Your task to perform on an android device: check android version Image 0: 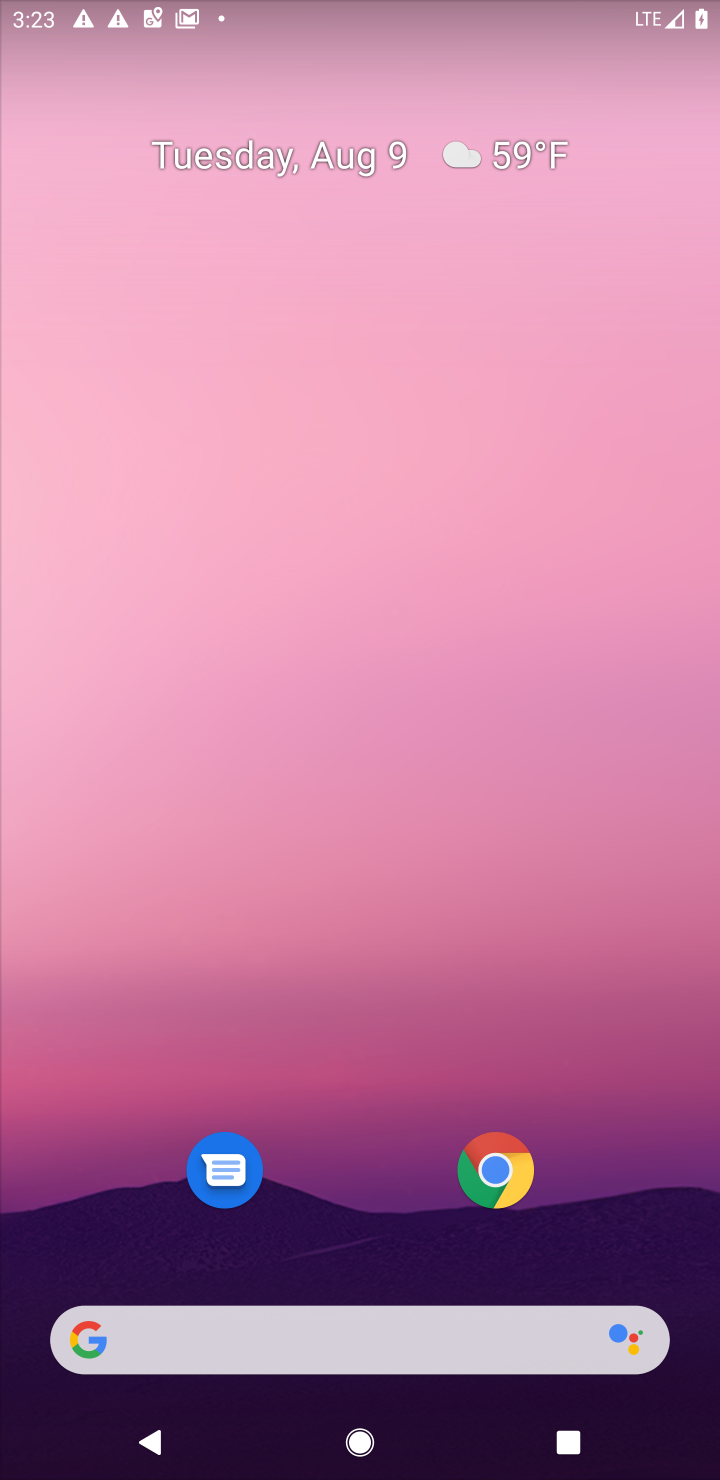
Step 0: press home button
Your task to perform on an android device: check android version Image 1: 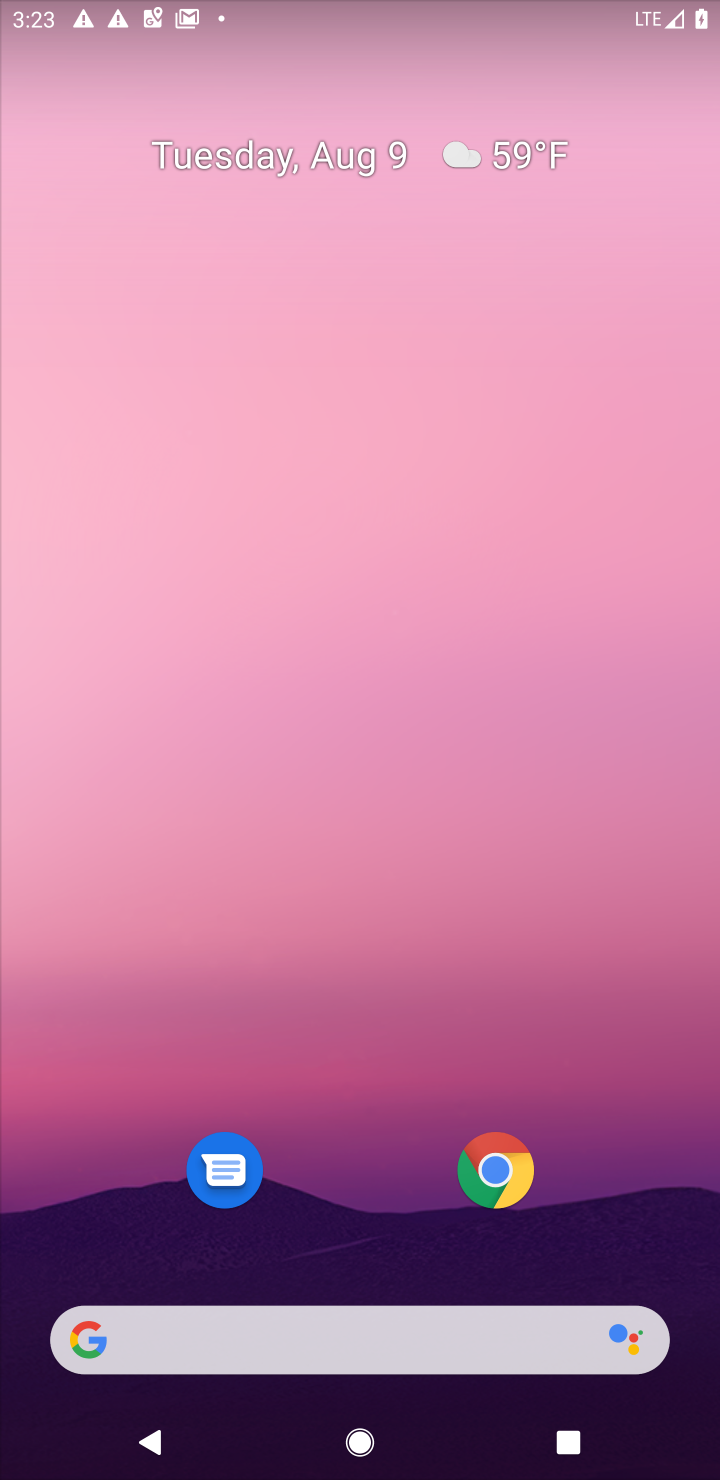
Step 1: click (420, 45)
Your task to perform on an android device: check android version Image 2: 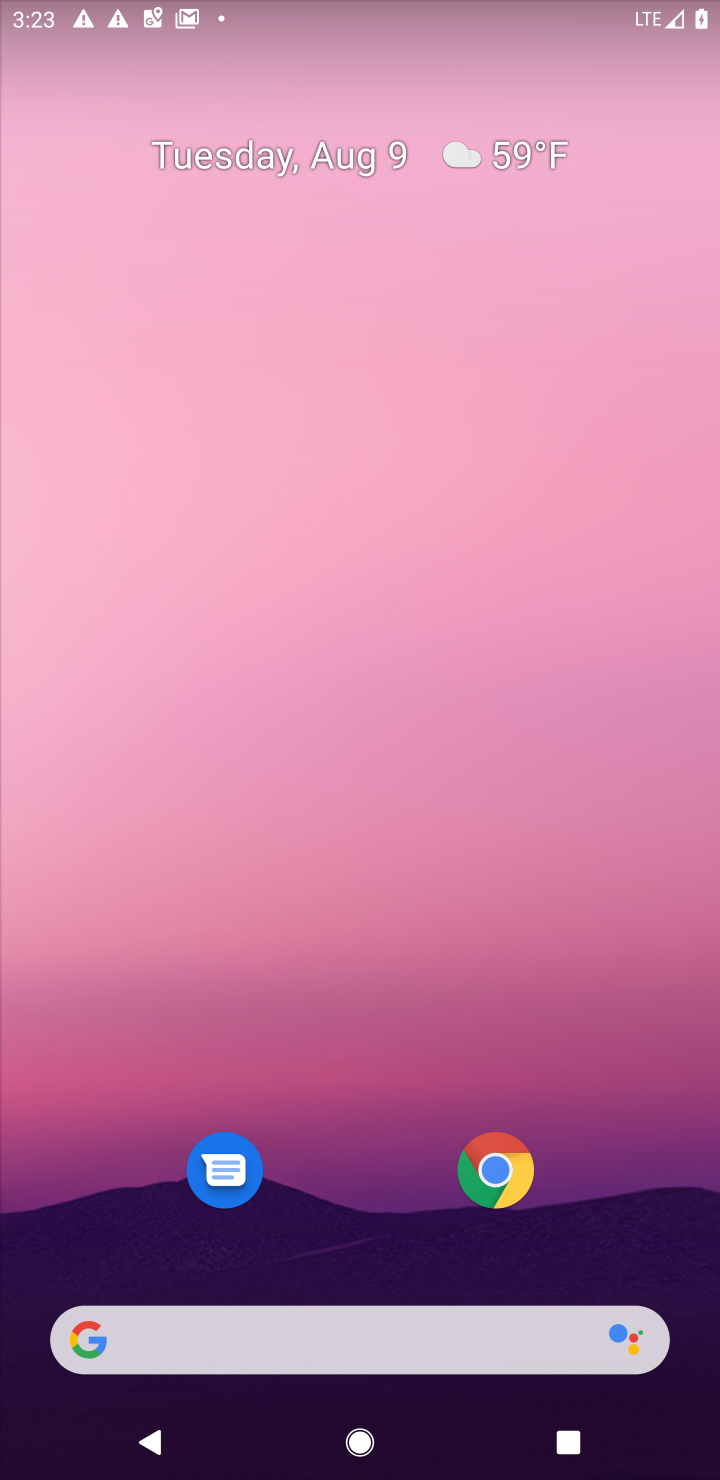
Step 2: drag from (336, 461) to (337, 183)
Your task to perform on an android device: check android version Image 3: 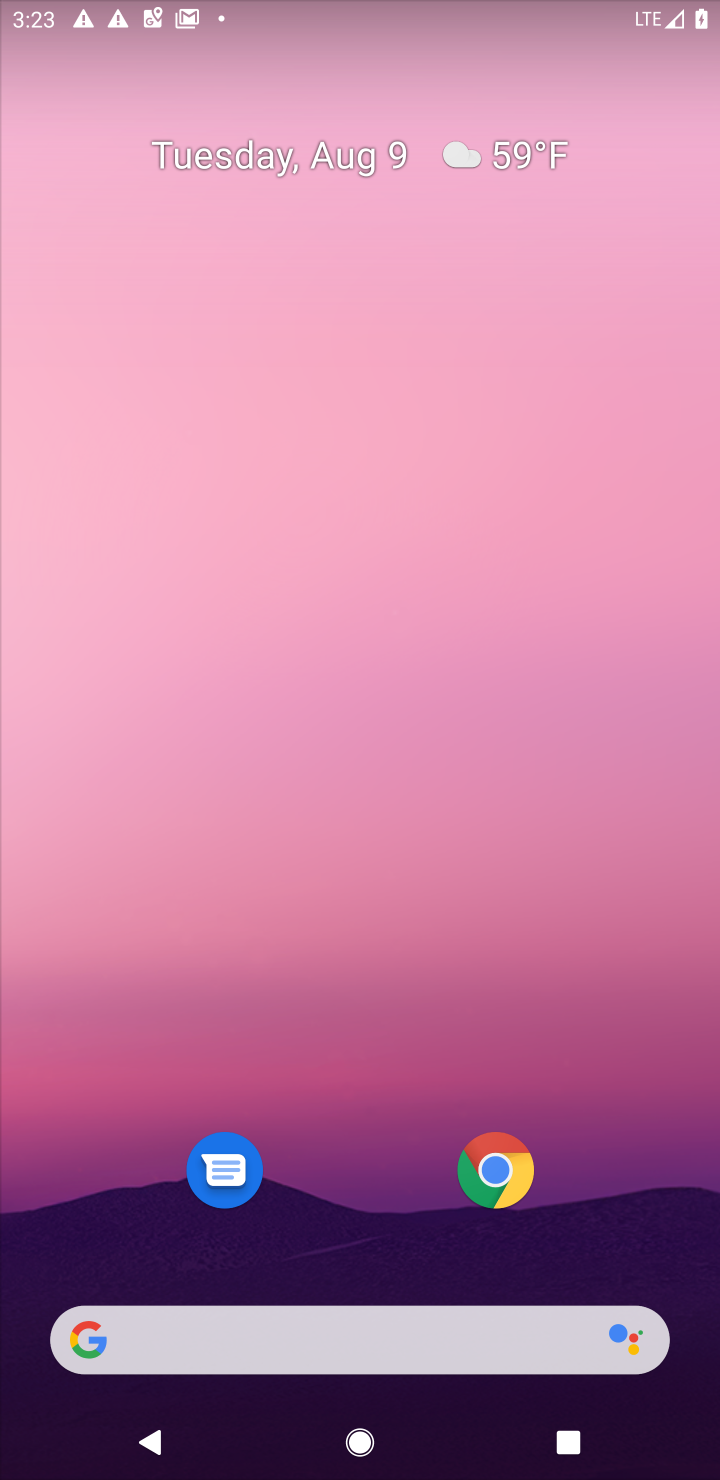
Step 3: drag from (385, 279) to (402, 164)
Your task to perform on an android device: check android version Image 4: 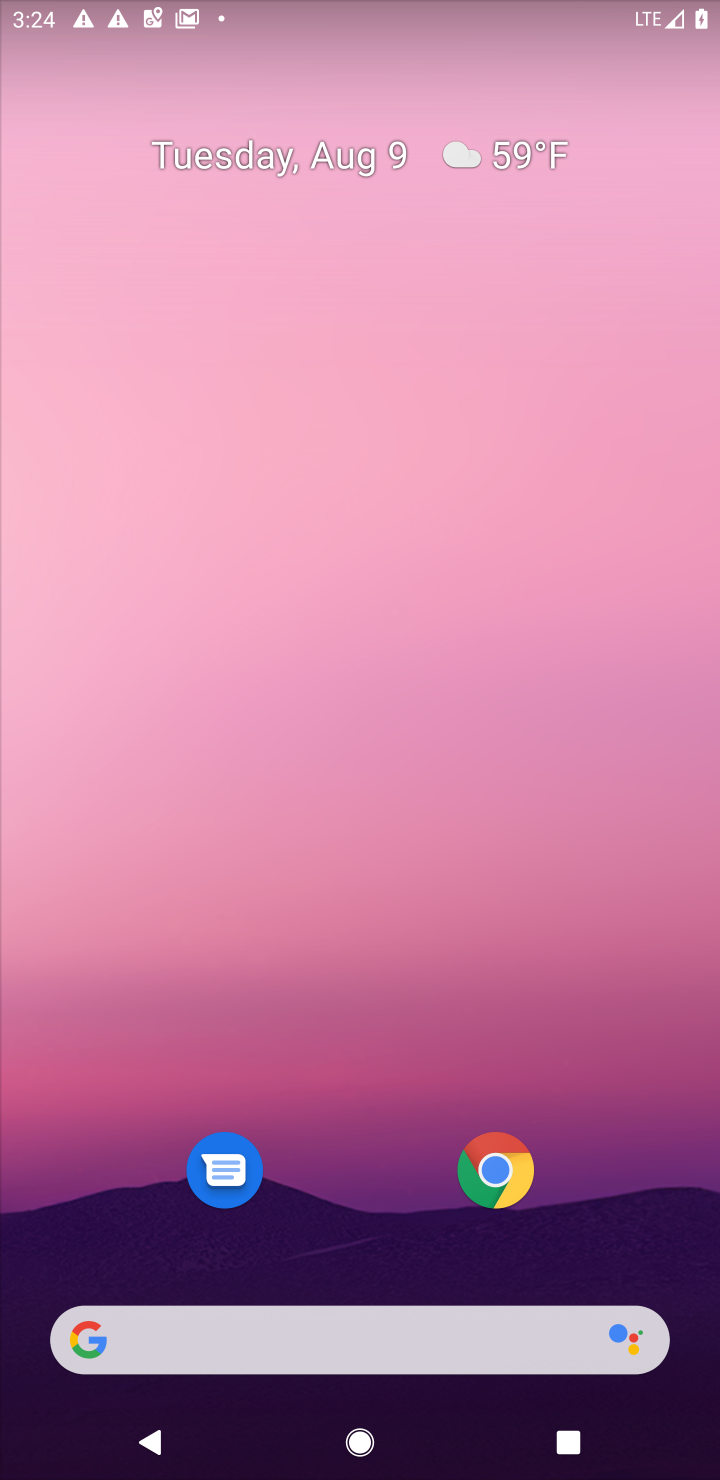
Step 4: drag from (414, 697) to (460, 133)
Your task to perform on an android device: check android version Image 5: 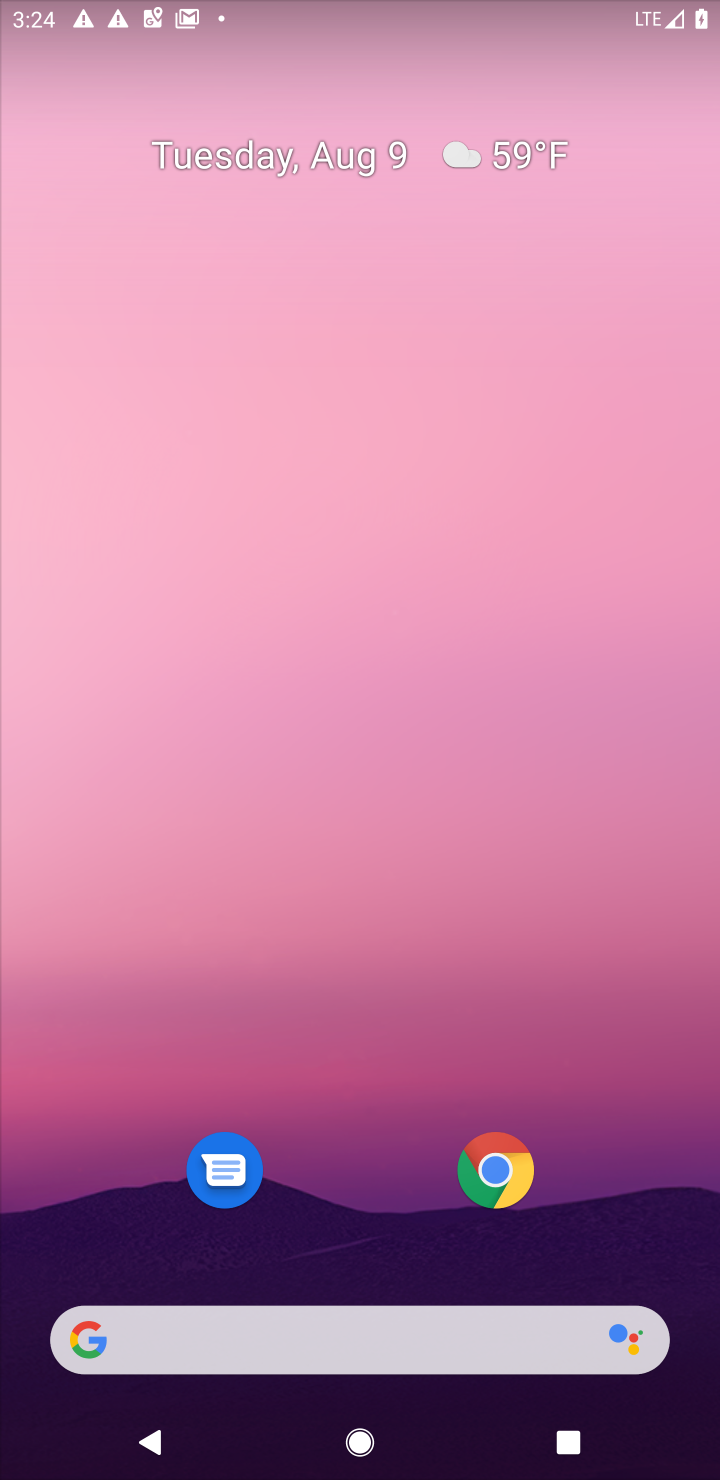
Step 5: drag from (361, 1180) to (430, 2)
Your task to perform on an android device: check android version Image 6: 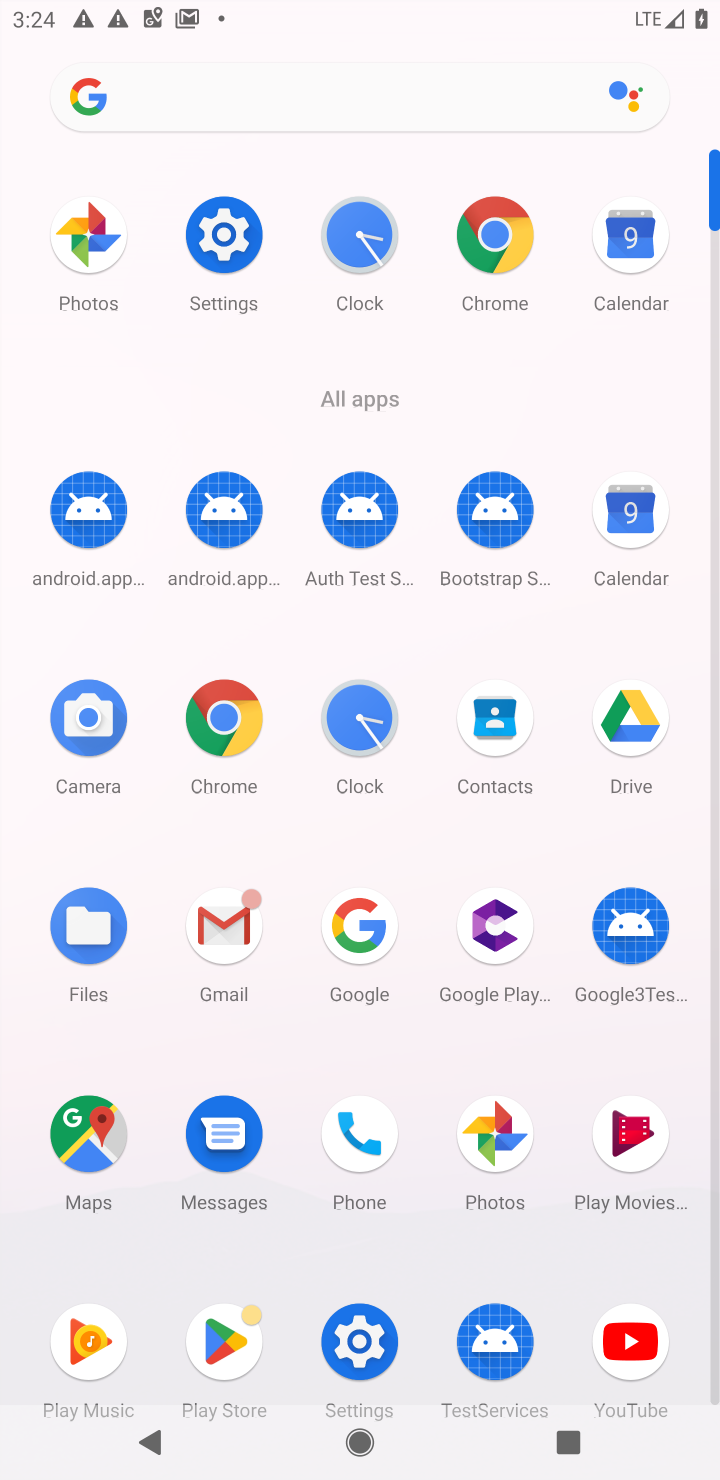
Step 6: click (213, 221)
Your task to perform on an android device: check android version Image 7: 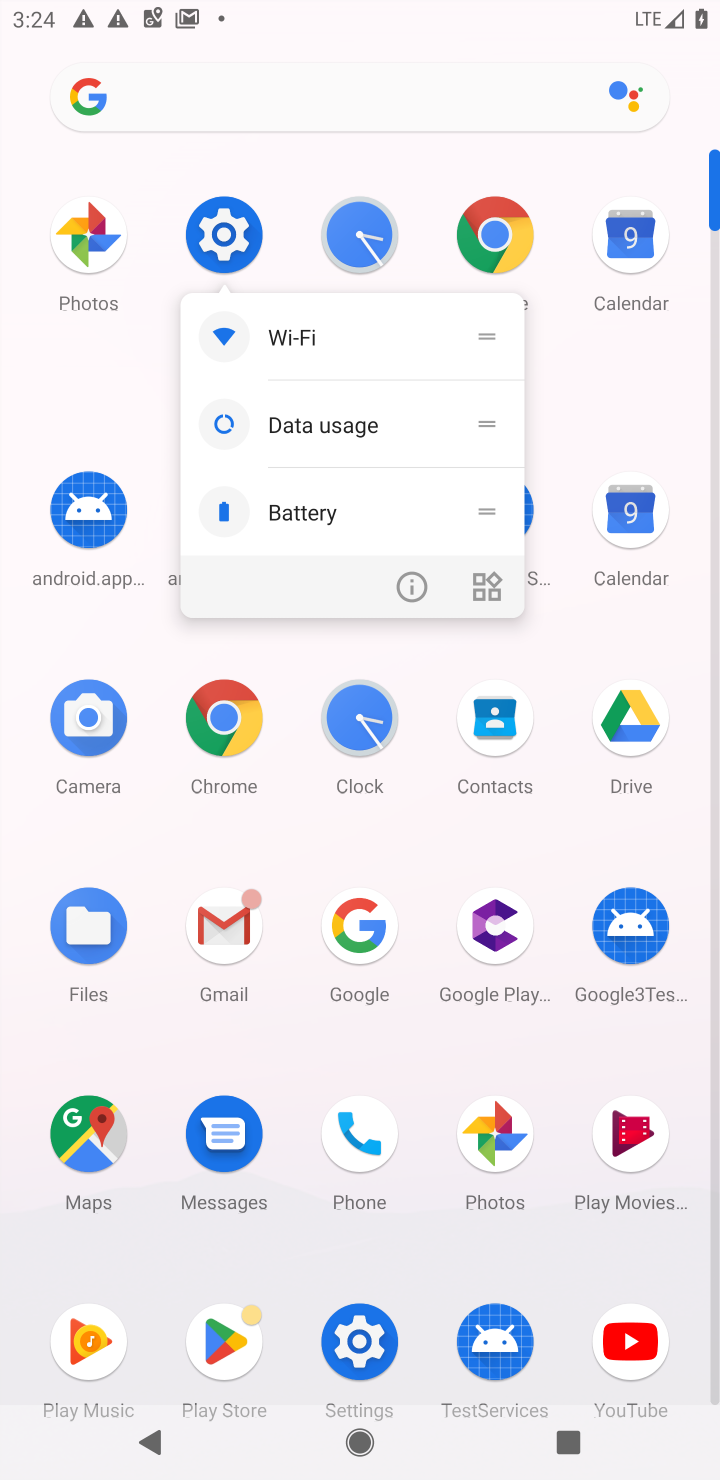
Step 7: click (242, 235)
Your task to perform on an android device: check android version Image 8: 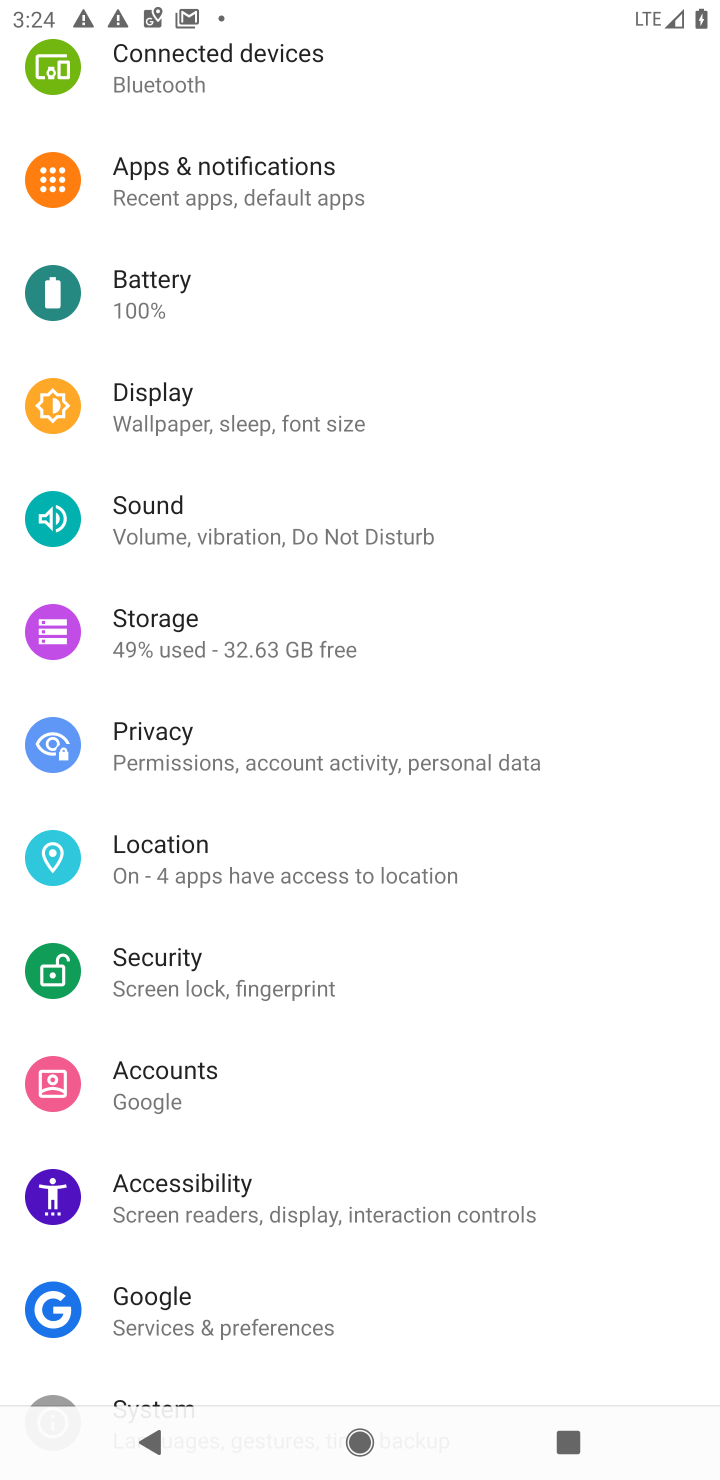
Step 8: drag from (246, 1365) to (289, 591)
Your task to perform on an android device: check android version Image 9: 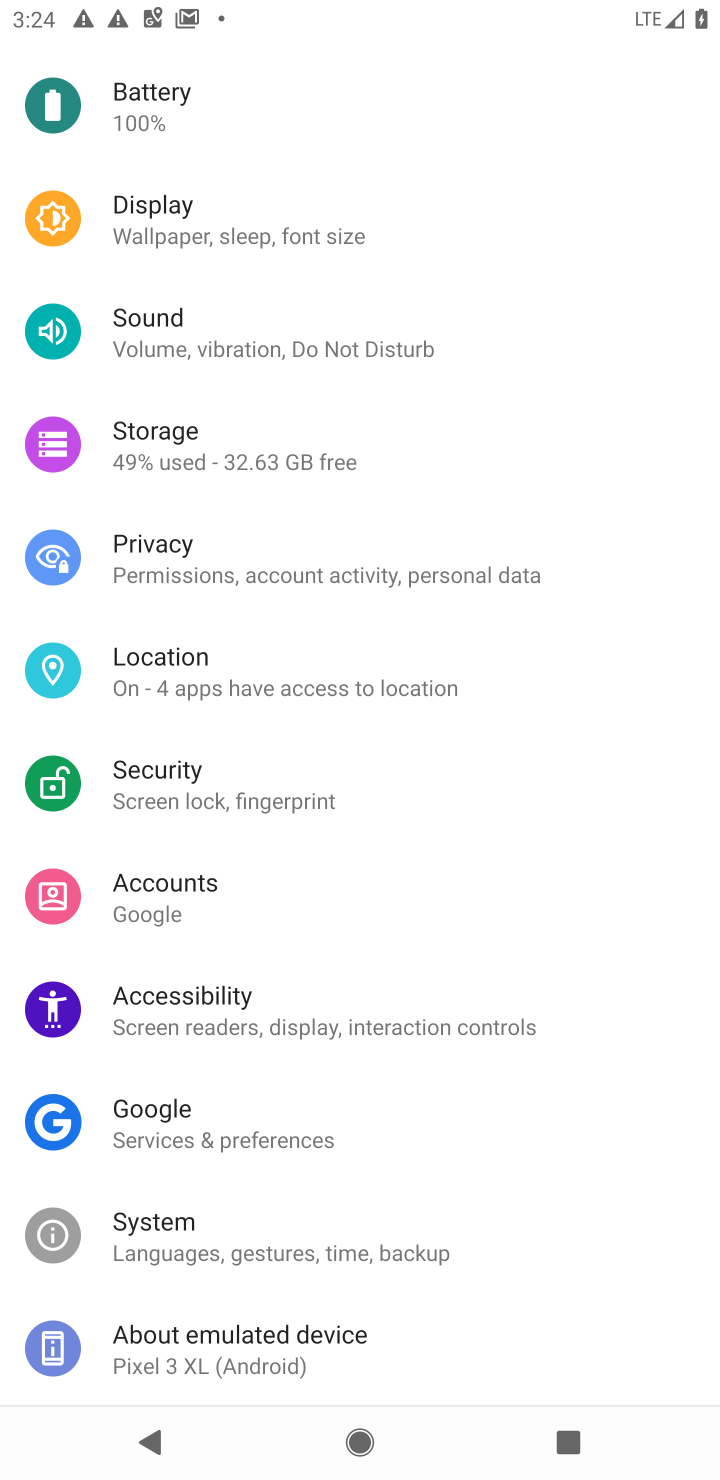
Step 9: click (168, 1346)
Your task to perform on an android device: check android version Image 10: 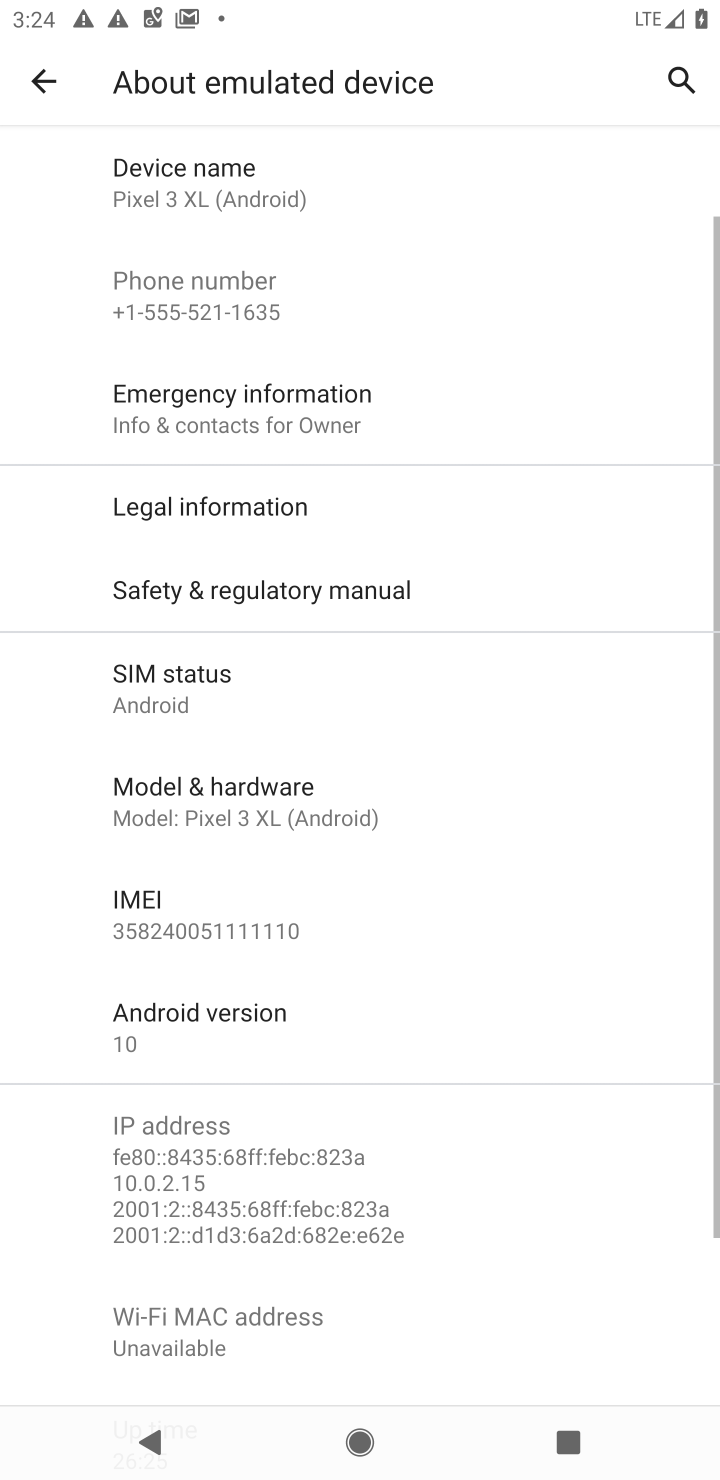
Step 10: click (162, 1034)
Your task to perform on an android device: check android version Image 11: 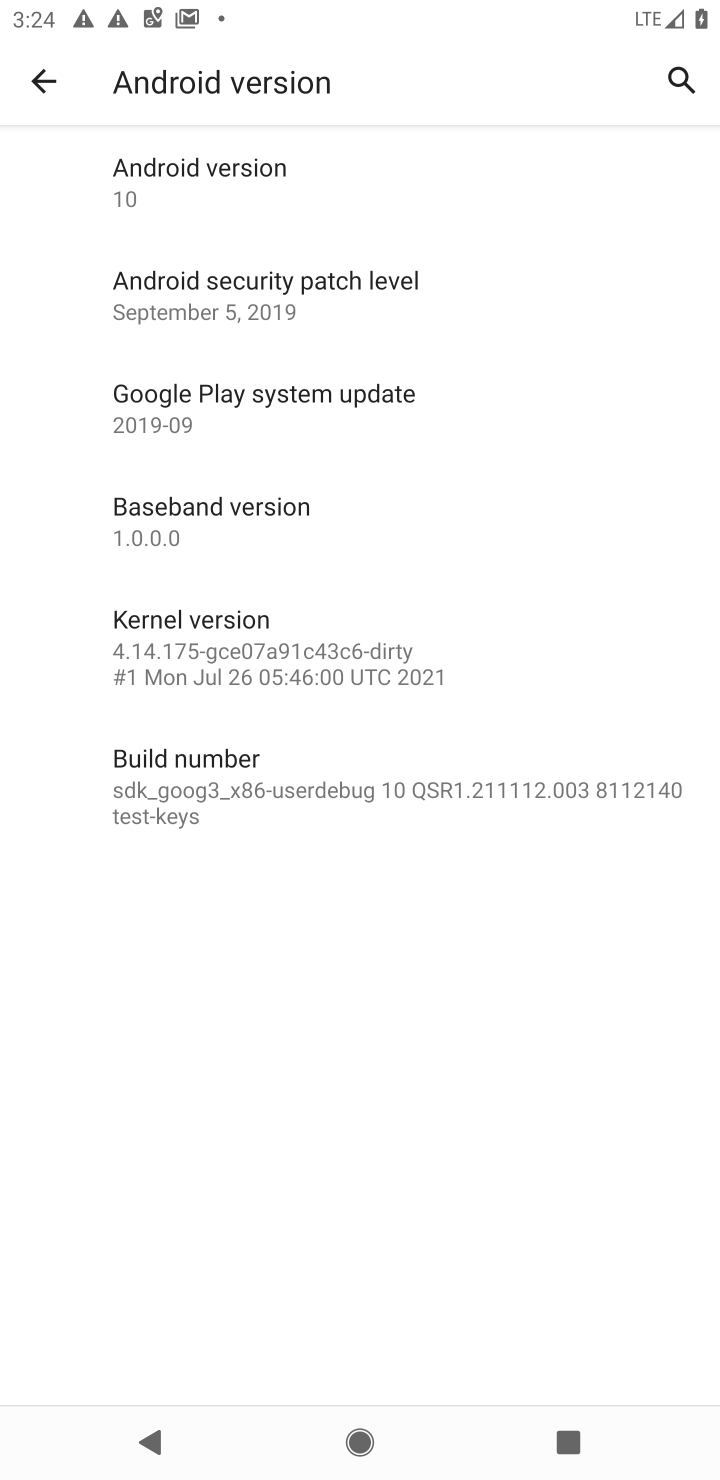
Step 11: task complete